Your task to perform on an android device: toggle javascript in the chrome app Image 0: 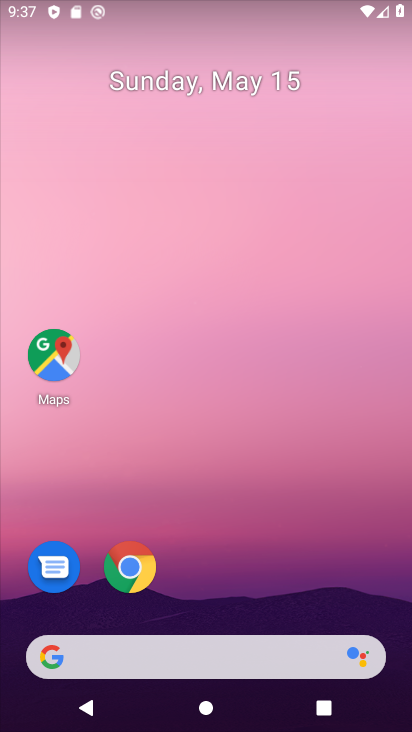
Step 0: click (132, 570)
Your task to perform on an android device: toggle javascript in the chrome app Image 1: 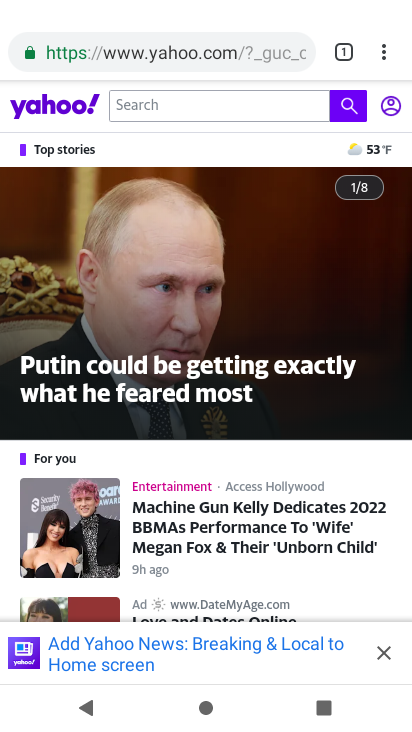
Step 1: click (379, 50)
Your task to perform on an android device: toggle javascript in the chrome app Image 2: 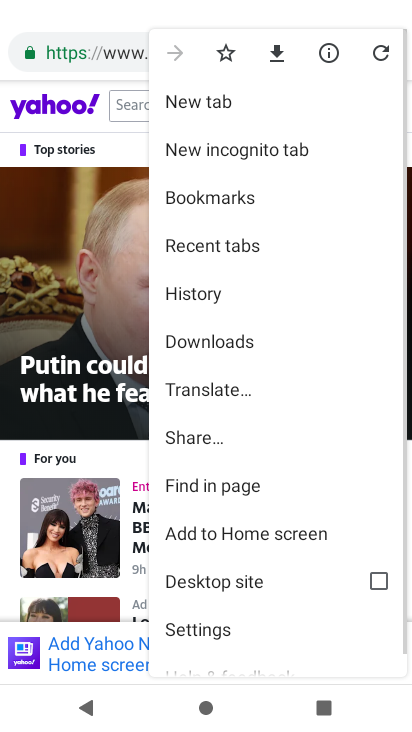
Step 2: click (233, 629)
Your task to perform on an android device: toggle javascript in the chrome app Image 3: 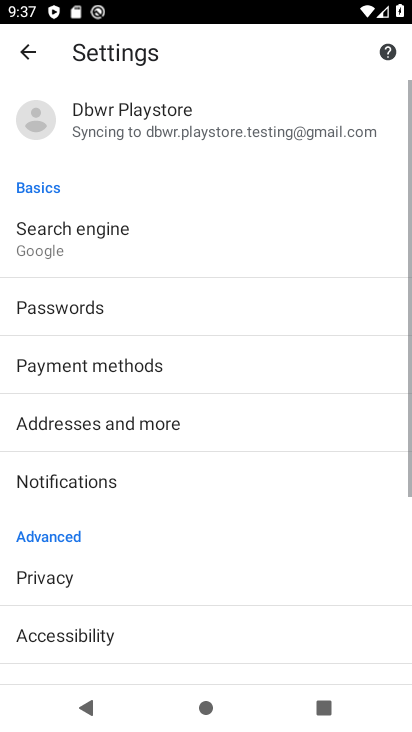
Step 3: drag from (177, 574) to (158, 184)
Your task to perform on an android device: toggle javascript in the chrome app Image 4: 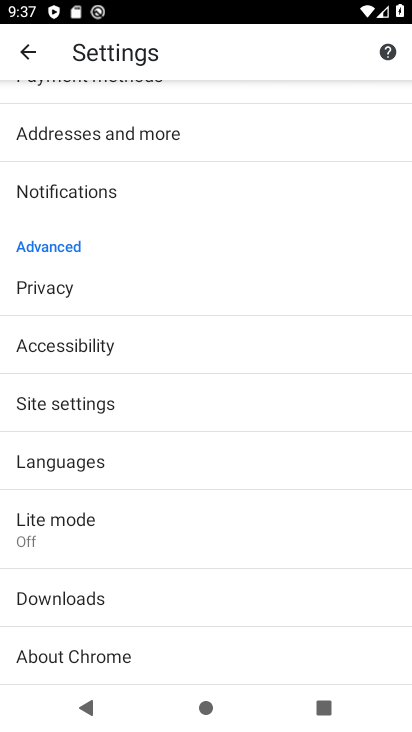
Step 4: drag from (167, 557) to (116, 332)
Your task to perform on an android device: toggle javascript in the chrome app Image 5: 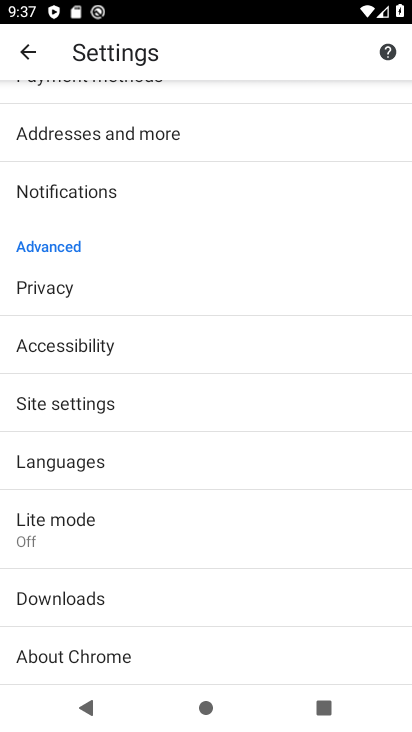
Step 5: click (70, 402)
Your task to perform on an android device: toggle javascript in the chrome app Image 6: 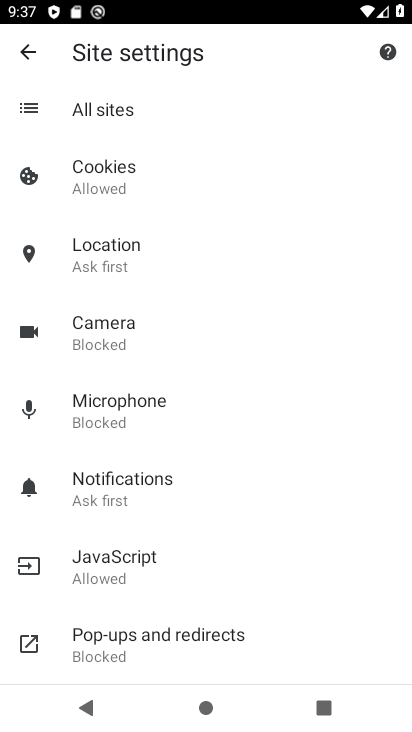
Step 6: click (122, 568)
Your task to perform on an android device: toggle javascript in the chrome app Image 7: 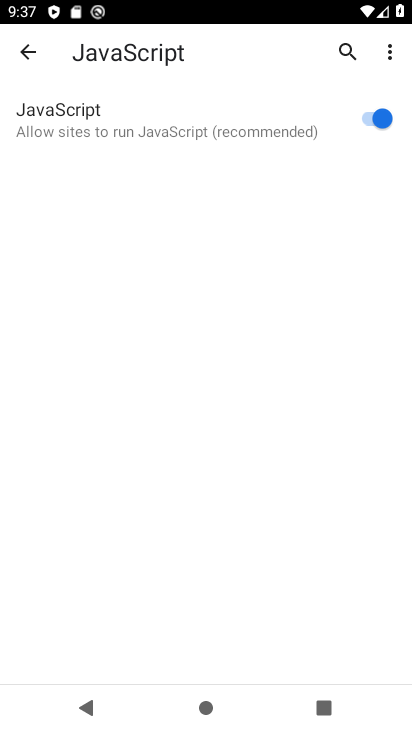
Step 7: click (380, 115)
Your task to perform on an android device: toggle javascript in the chrome app Image 8: 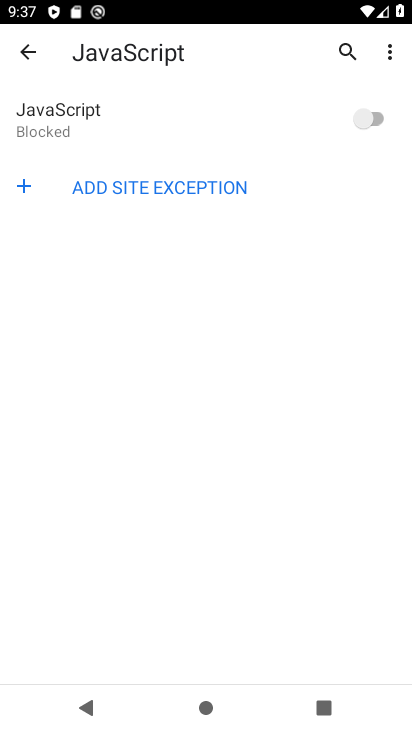
Step 8: task complete